Your task to perform on an android device: toggle translation in the chrome app Image 0: 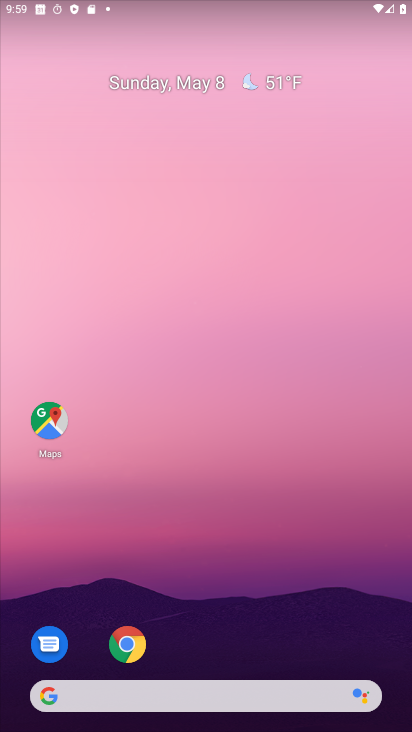
Step 0: drag from (174, 587) to (59, 9)
Your task to perform on an android device: toggle translation in the chrome app Image 1: 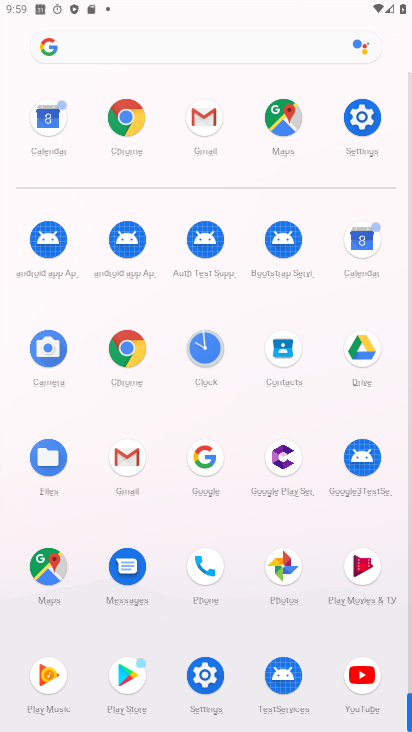
Step 1: click (121, 343)
Your task to perform on an android device: toggle translation in the chrome app Image 2: 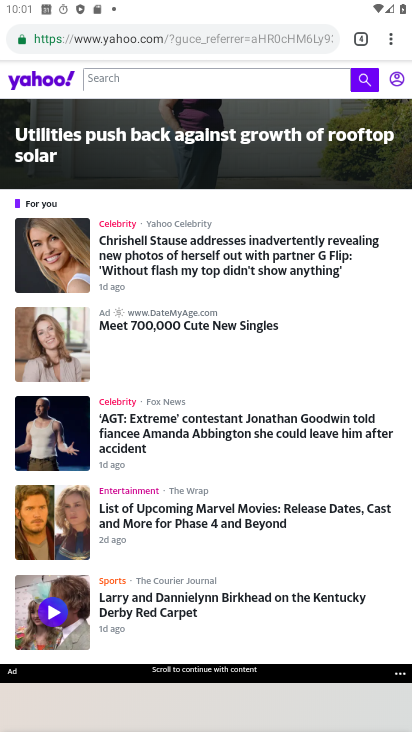
Step 2: click (396, 40)
Your task to perform on an android device: toggle translation in the chrome app Image 3: 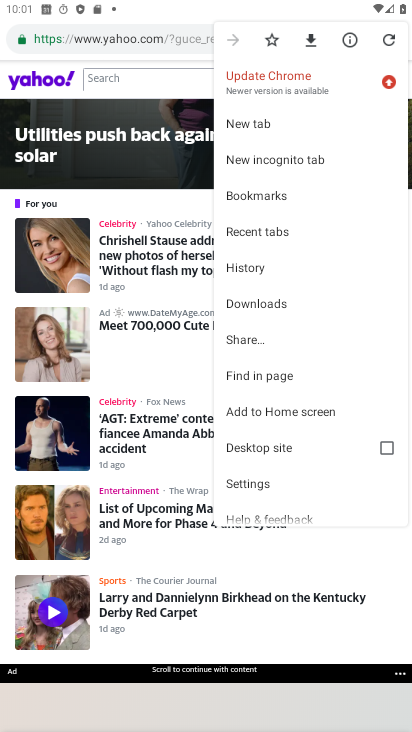
Step 3: click (257, 480)
Your task to perform on an android device: toggle translation in the chrome app Image 4: 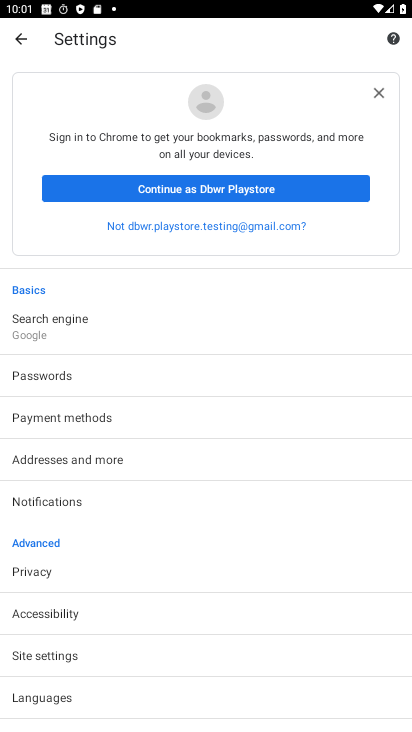
Step 4: drag from (79, 676) to (96, 384)
Your task to perform on an android device: toggle translation in the chrome app Image 5: 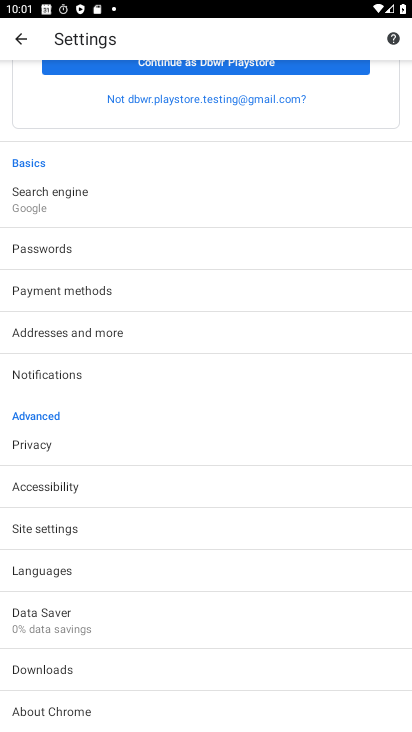
Step 5: click (44, 576)
Your task to perform on an android device: toggle translation in the chrome app Image 6: 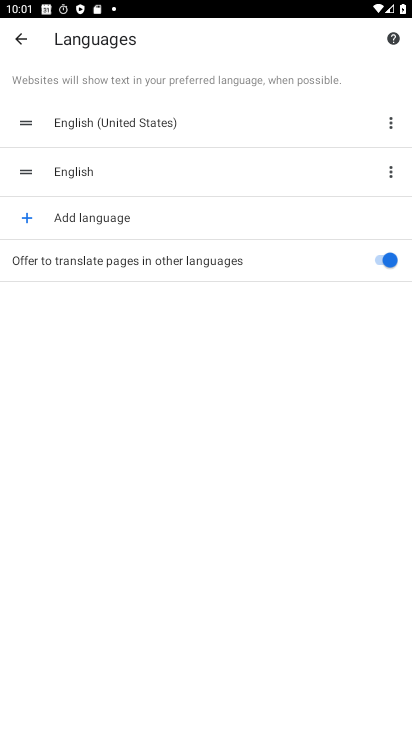
Step 6: click (390, 253)
Your task to perform on an android device: toggle translation in the chrome app Image 7: 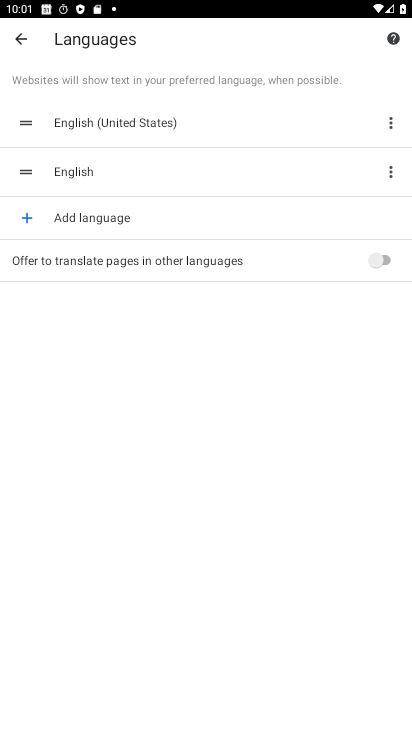
Step 7: task complete